Your task to perform on an android device: open app "Pluto TV - Live TV and Movies" Image 0: 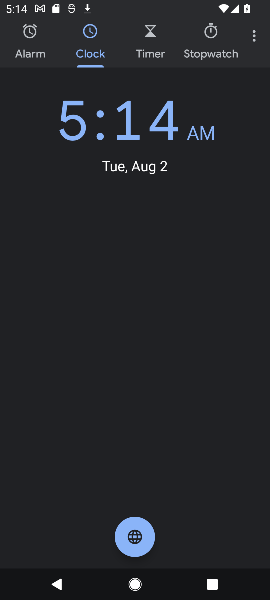
Step 0: press home button
Your task to perform on an android device: open app "Pluto TV - Live TV and Movies" Image 1: 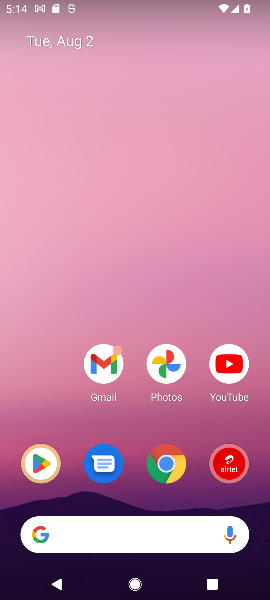
Step 1: click (38, 464)
Your task to perform on an android device: open app "Pluto TV - Live TV and Movies" Image 2: 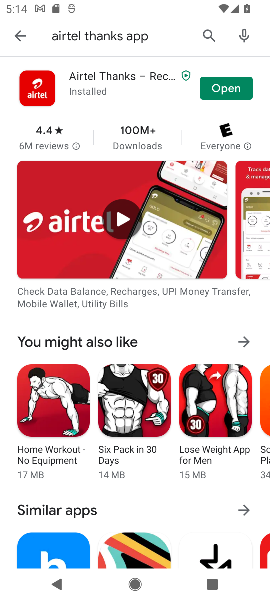
Step 2: click (209, 31)
Your task to perform on an android device: open app "Pluto TV - Live TV and Movies" Image 3: 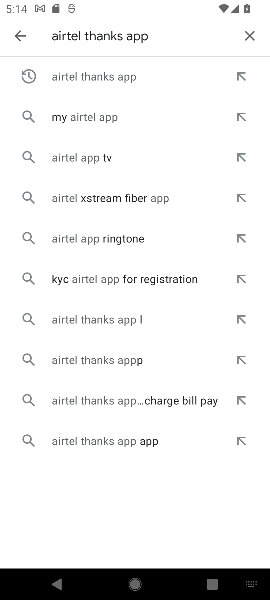
Step 3: click (250, 29)
Your task to perform on an android device: open app "Pluto TV - Live TV and Movies" Image 4: 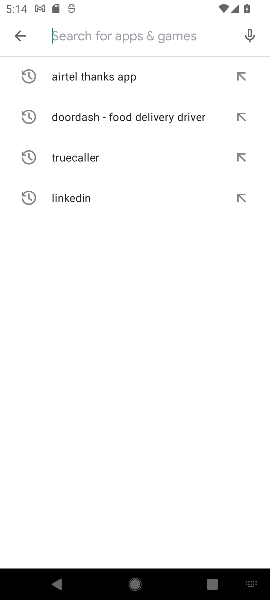
Step 4: type "Pluto TV - Live TV and Movies"
Your task to perform on an android device: open app "Pluto TV - Live TV and Movies" Image 5: 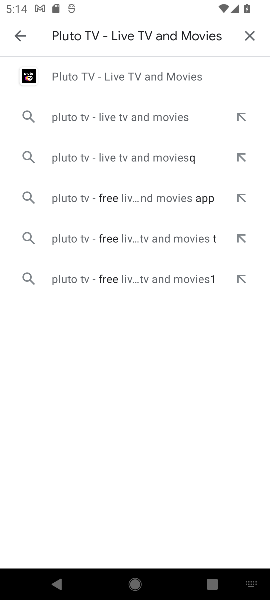
Step 5: click (138, 73)
Your task to perform on an android device: open app "Pluto TV - Live TV and Movies" Image 6: 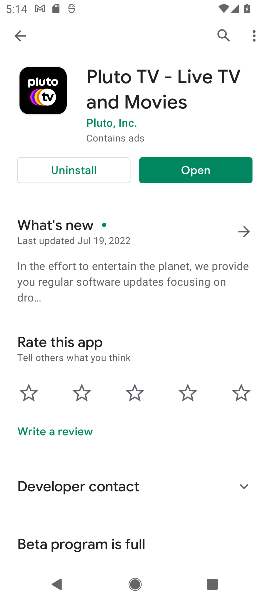
Step 6: click (194, 172)
Your task to perform on an android device: open app "Pluto TV - Live TV and Movies" Image 7: 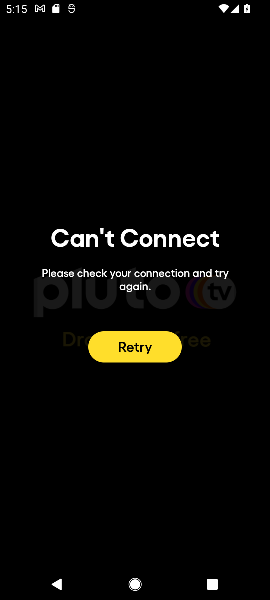
Step 7: task complete